Your task to perform on an android device: turn on wifi Image 0: 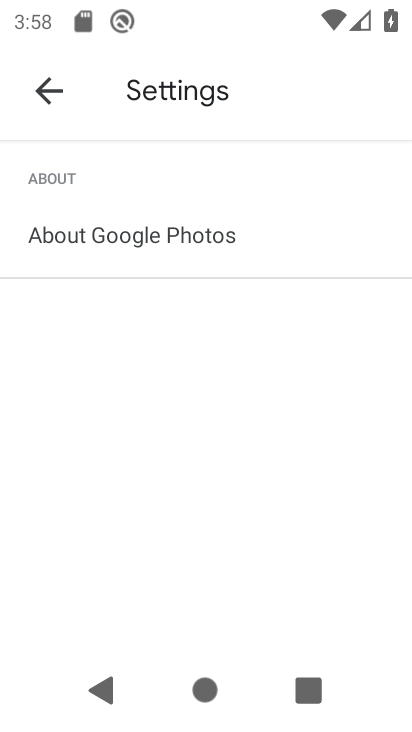
Step 0: press home button
Your task to perform on an android device: turn on wifi Image 1: 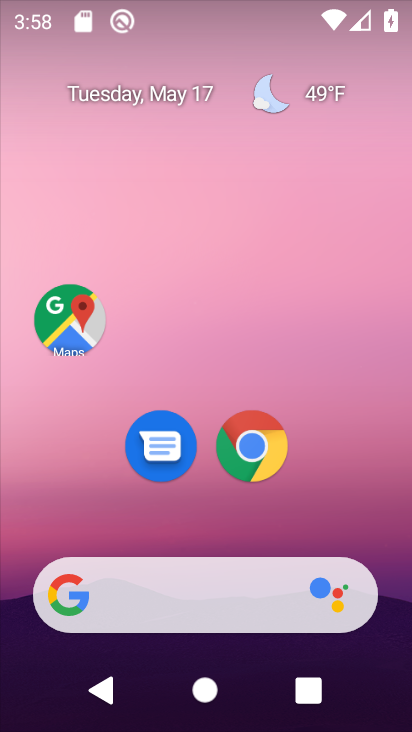
Step 1: drag from (57, 541) to (155, 133)
Your task to perform on an android device: turn on wifi Image 2: 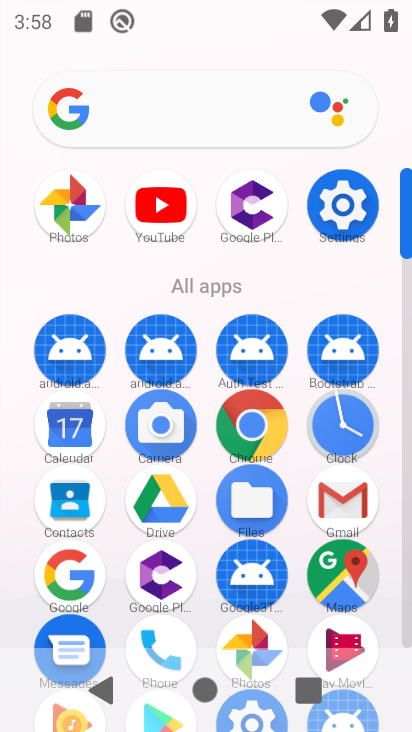
Step 2: drag from (164, 591) to (200, 327)
Your task to perform on an android device: turn on wifi Image 3: 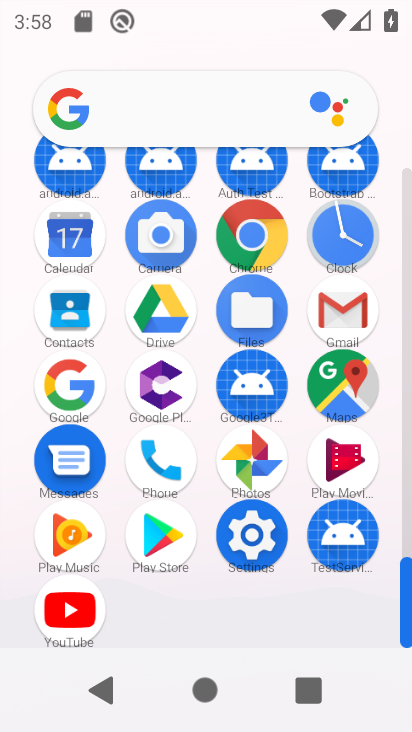
Step 3: click (261, 524)
Your task to perform on an android device: turn on wifi Image 4: 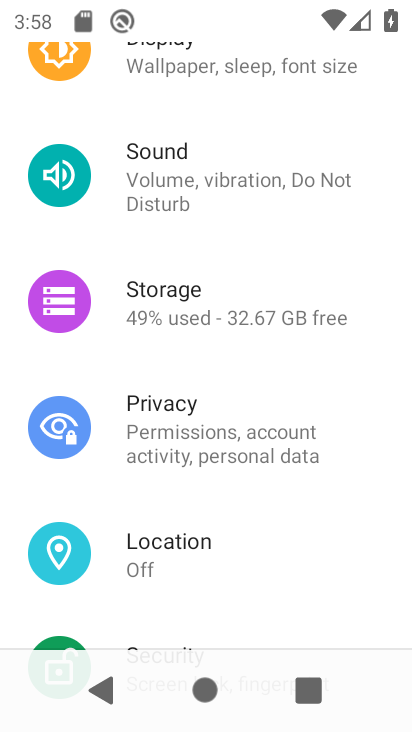
Step 4: drag from (273, 132) to (274, 608)
Your task to perform on an android device: turn on wifi Image 5: 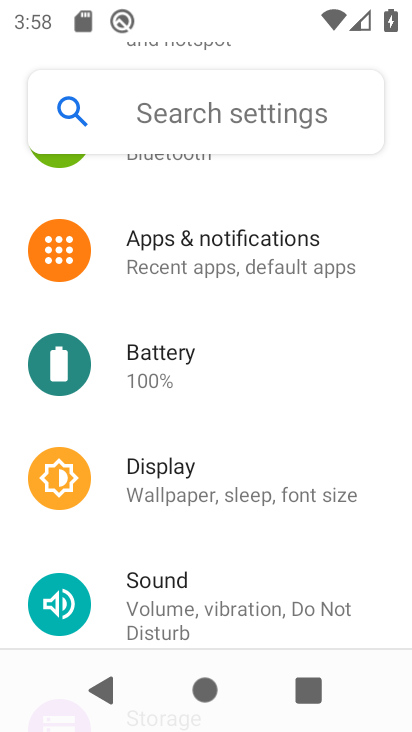
Step 5: drag from (268, 181) to (247, 569)
Your task to perform on an android device: turn on wifi Image 6: 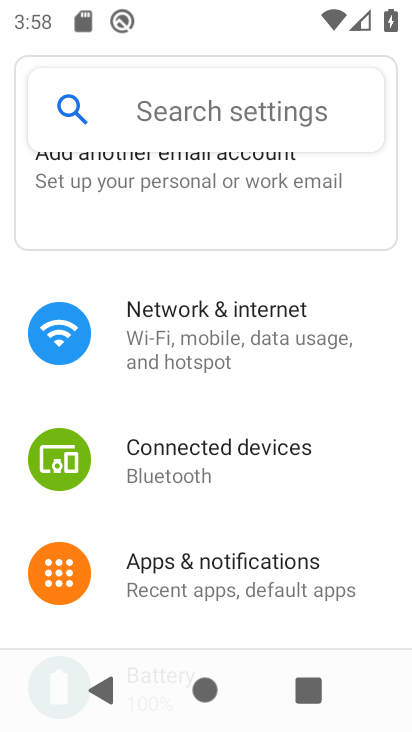
Step 6: click (299, 333)
Your task to perform on an android device: turn on wifi Image 7: 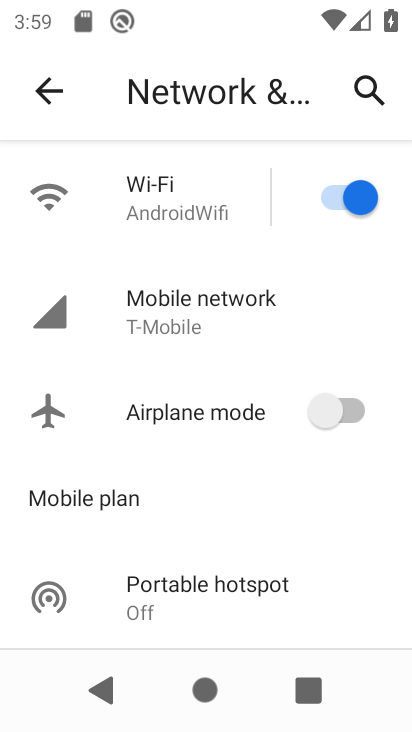
Step 7: task complete